Your task to perform on an android device: turn on translation in the chrome app Image 0: 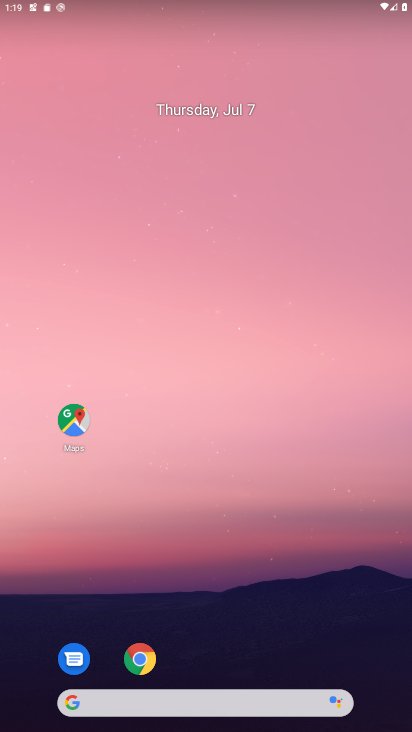
Step 0: drag from (177, 653) to (281, 168)
Your task to perform on an android device: turn on translation in the chrome app Image 1: 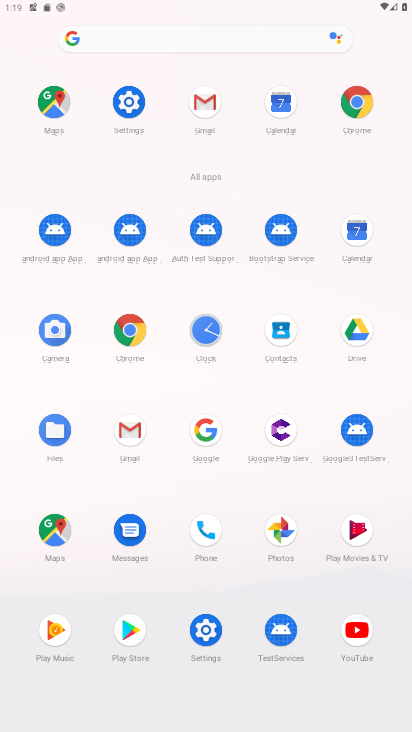
Step 1: click (354, 102)
Your task to perform on an android device: turn on translation in the chrome app Image 2: 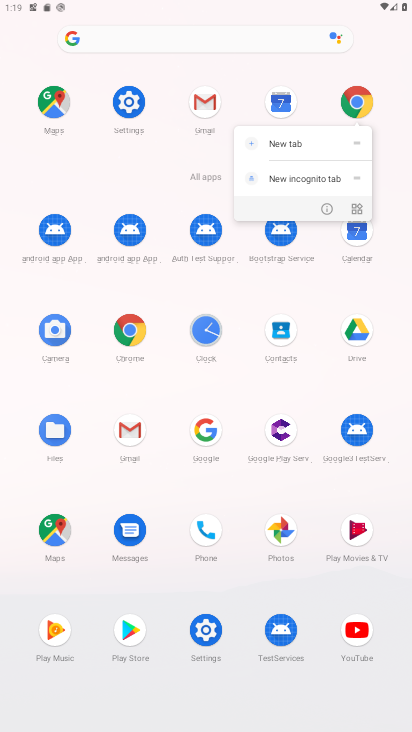
Step 2: click (325, 204)
Your task to perform on an android device: turn on translation in the chrome app Image 3: 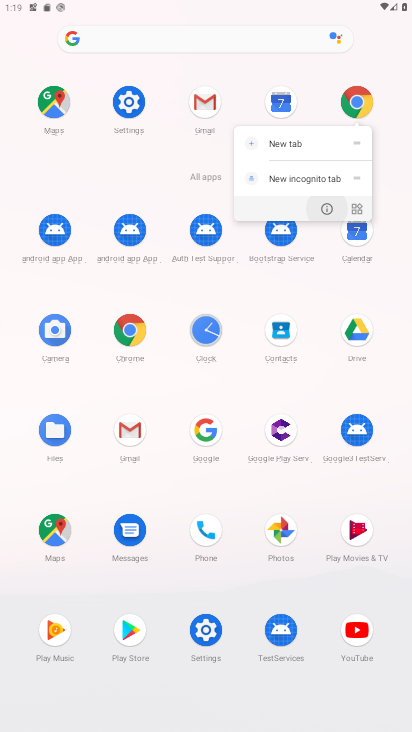
Step 3: click (325, 204)
Your task to perform on an android device: turn on translation in the chrome app Image 4: 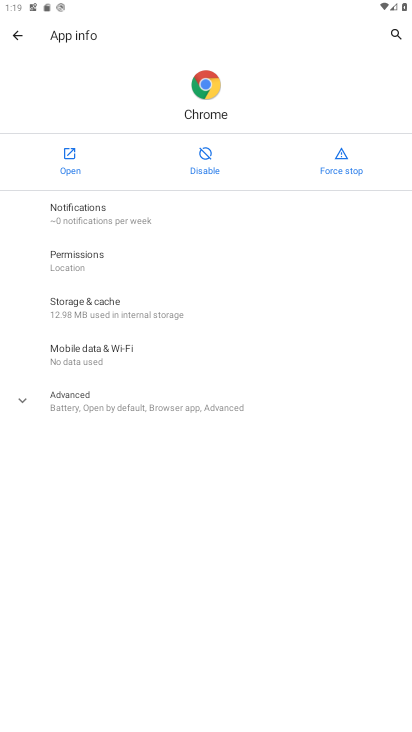
Step 4: click (80, 165)
Your task to perform on an android device: turn on translation in the chrome app Image 5: 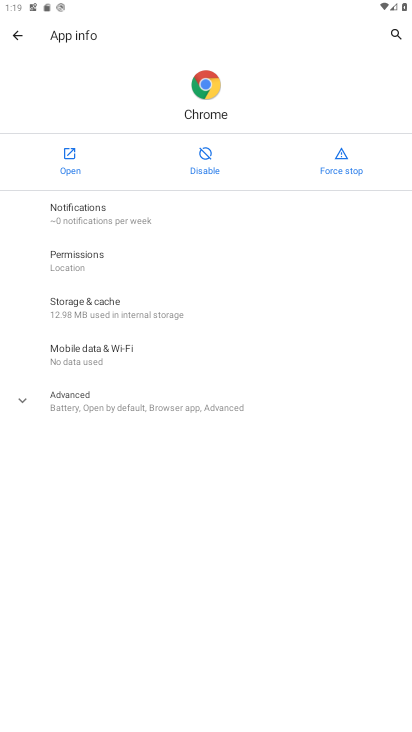
Step 5: click (79, 164)
Your task to perform on an android device: turn on translation in the chrome app Image 6: 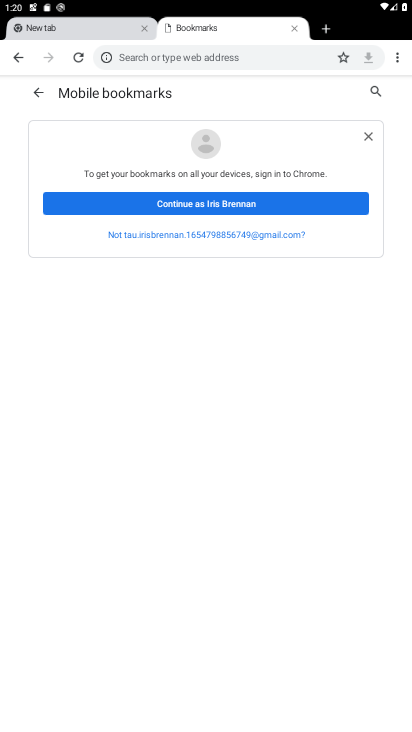
Step 6: drag from (164, 671) to (270, 193)
Your task to perform on an android device: turn on translation in the chrome app Image 7: 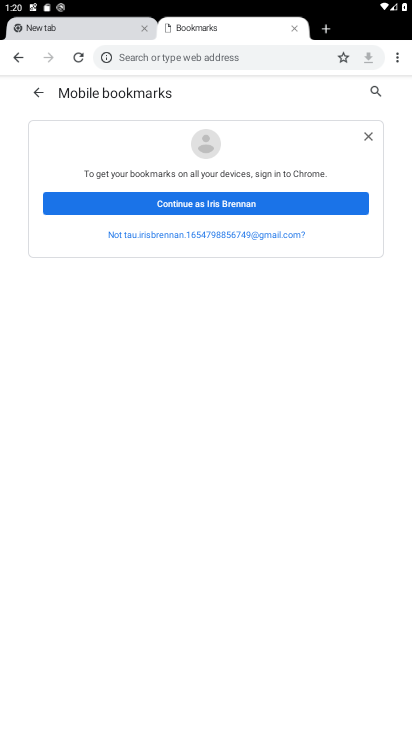
Step 7: click (394, 55)
Your task to perform on an android device: turn on translation in the chrome app Image 8: 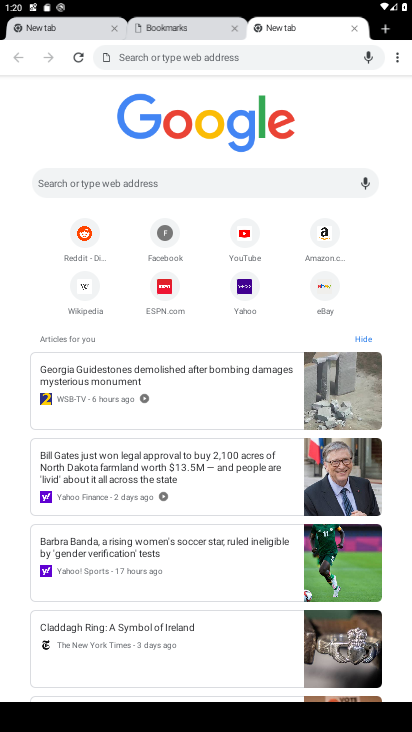
Step 8: click (354, 29)
Your task to perform on an android device: turn on translation in the chrome app Image 9: 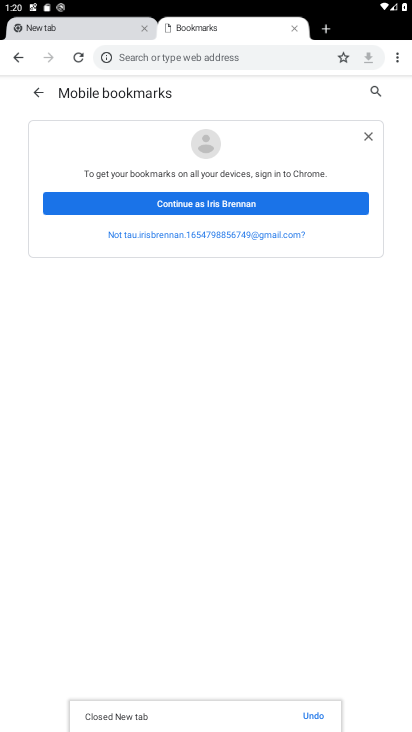
Step 9: click (400, 63)
Your task to perform on an android device: turn on translation in the chrome app Image 10: 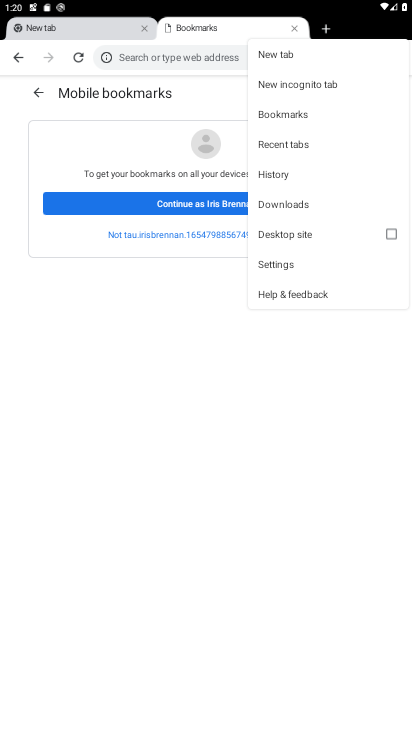
Step 10: click (302, 173)
Your task to perform on an android device: turn on translation in the chrome app Image 11: 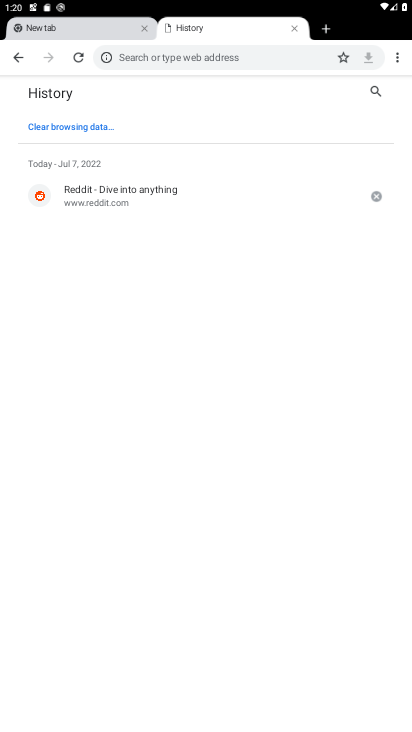
Step 11: drag from (246, 391) to (322, 210)
Your task to perform on an android device: turn on translation in the chrome app Image 12: 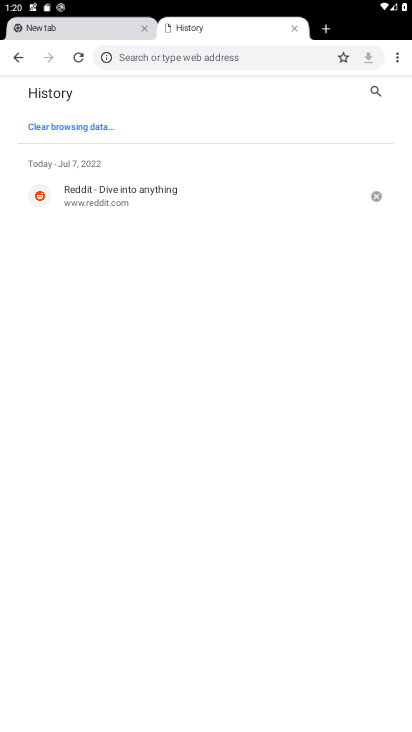
Step 12: click (400, 49)
Your task to perform on an android device: turn on translation in the chrome app Image 13: 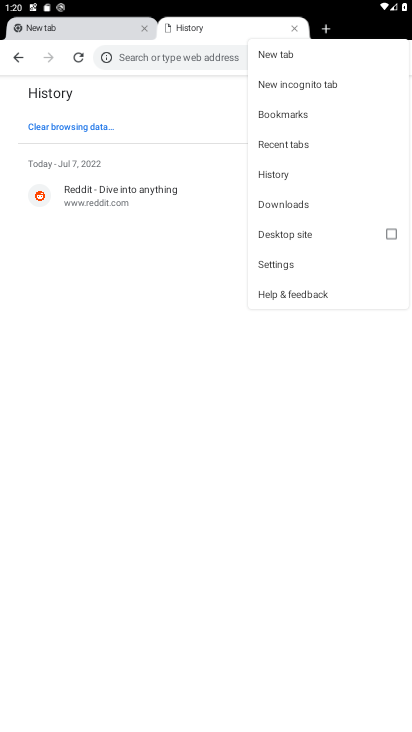
Step 13: click (290, 266)
Your task to perform on an android device: turn on translation in the chrome app Image 14: 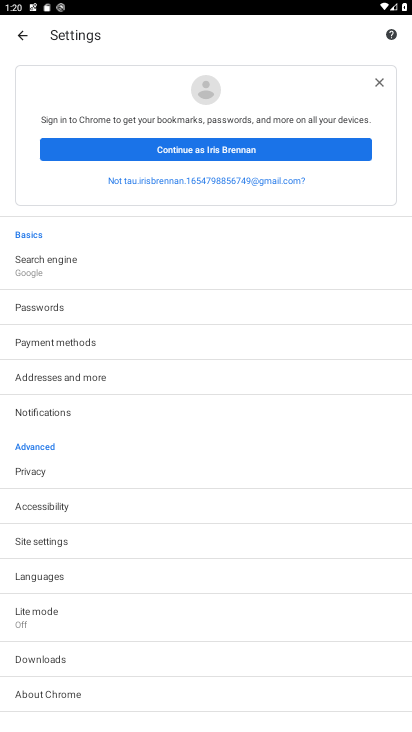
Step 14: drag from (156, 682) to (282, 242)
Your task to perform on an android device: turn on translation in the chrome app Image 15: 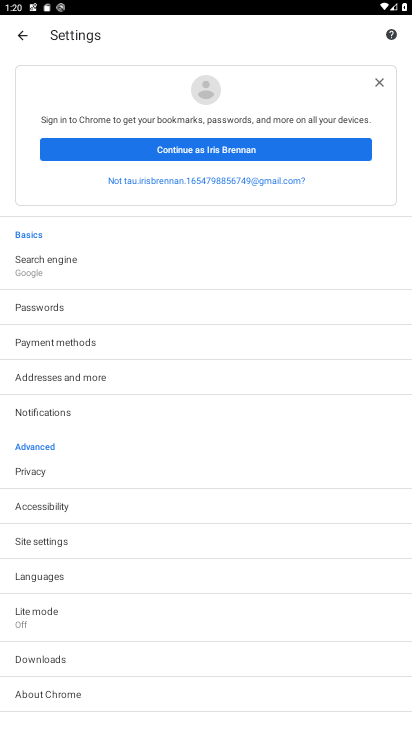
Step 15: drag from (264, 506) to (308, 224)
Your task to perform on an android device: turn on translation in the chrome app Image 16: 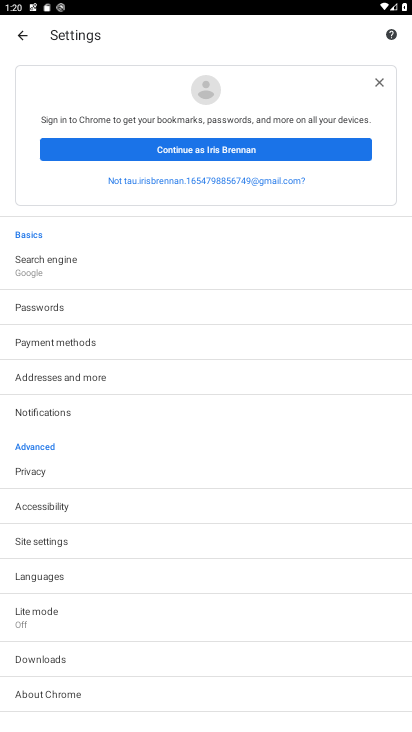
Step 16: drag from (189, 648) to (322, 275)
Your task to perform on an android device: turn on translation in the chrome app Image 17: 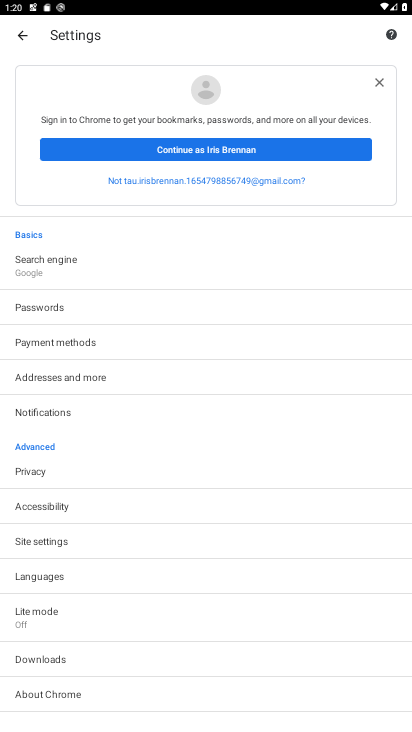
Step 17: click (70, 550)
Your task to perform on an android device: turn on translation in the chrome app Image 18: 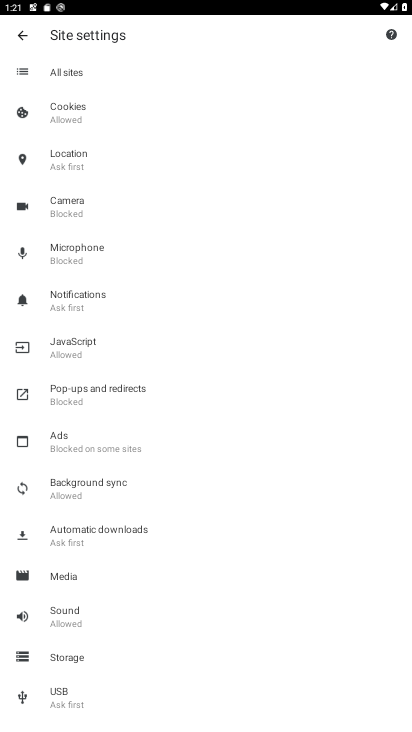
Step 18: click (27, 36)
Your task to perform on an android device: turn on translation in the chrome app Image 19: 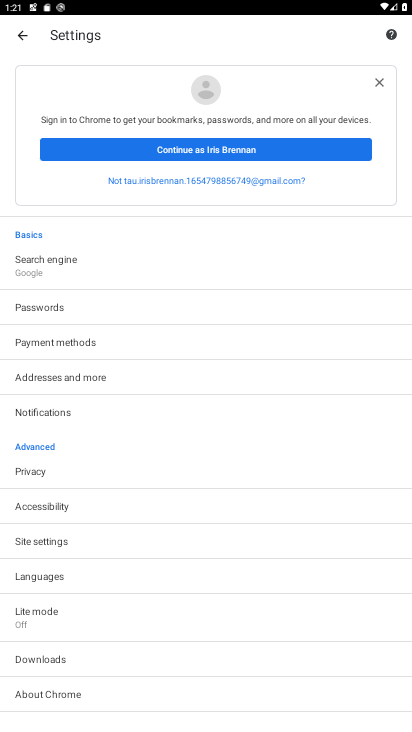
Step 19: click (95, 574)
Your task to perform on an android device: turn on translation in the chrome app Image 20: 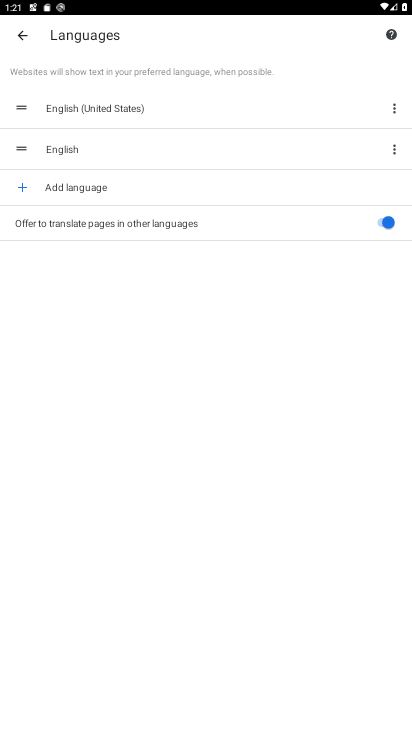
Step 20: task complete